Your task to perform on an android device: turn smart compose on in the gmail app Image 0: 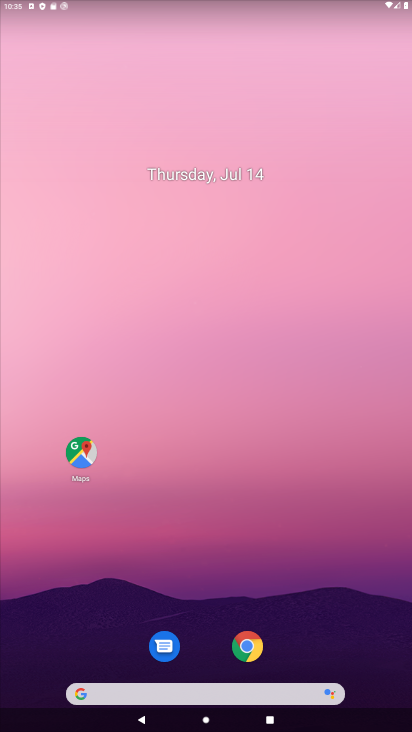
Step 0: drag from (168, 616) to (160, 59)
Your task to perform on an android device: turn smart compose on in the gmail app Image 1: 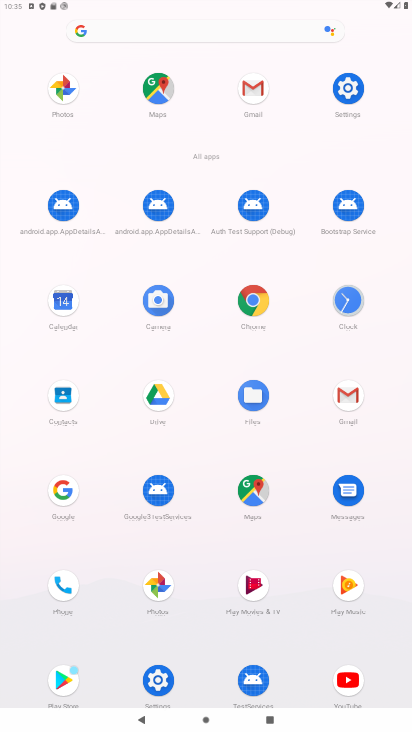
Step 1: click (246, 115)
Your task to perform on an android device: turn smart compose on in the gmail app Image 2: 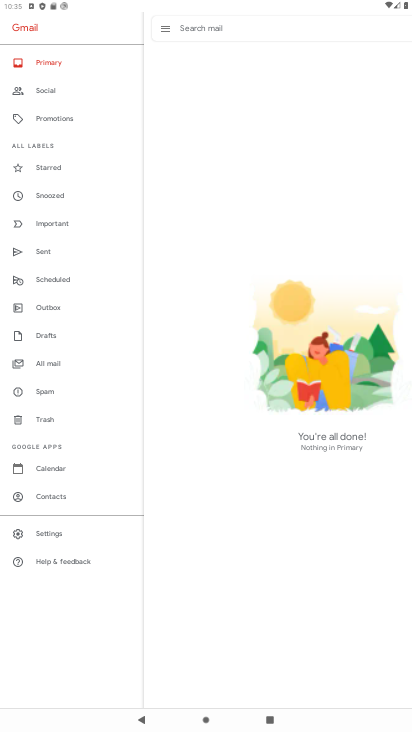
Step 2: click (55, 528)
Your task to perform on an android device: turn smart compose on in the gmail app Image 3: 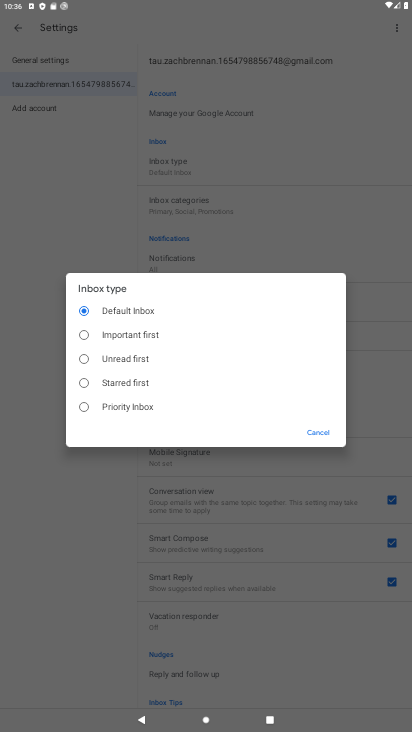
Step 3: click (32, 179)
Your task to perform on an android device: turn smart compose on in the gmail app Image 4: 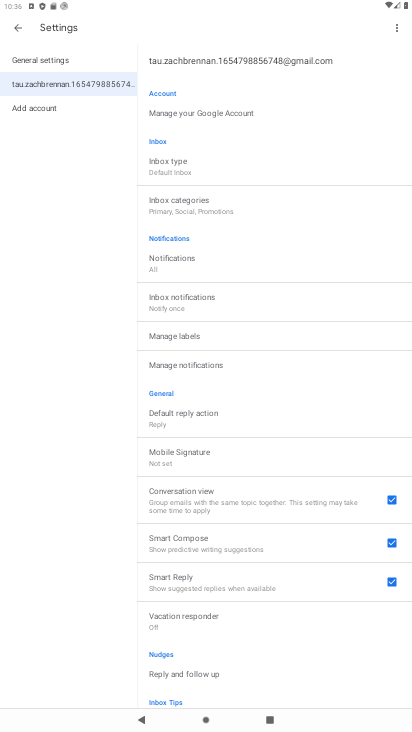
Step 4: task complete